Your task to perform on an android device: change the clock display to analog Image 0: 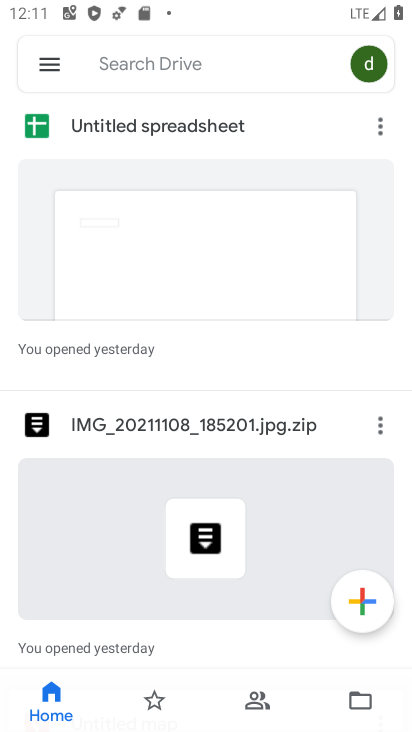
Step 0: press home button
Your task to perform on an android device: change the clock display to analog Image 1: 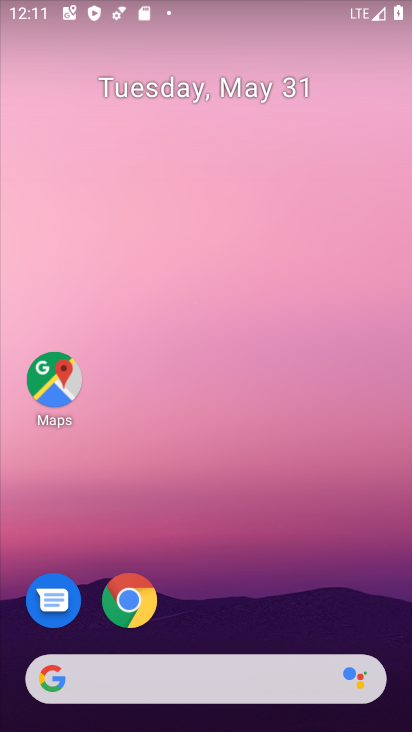
Step 1: drag from (203, 727) to (203, 138)
Your task to perform on an android device: change the clock display to analog Image 2: 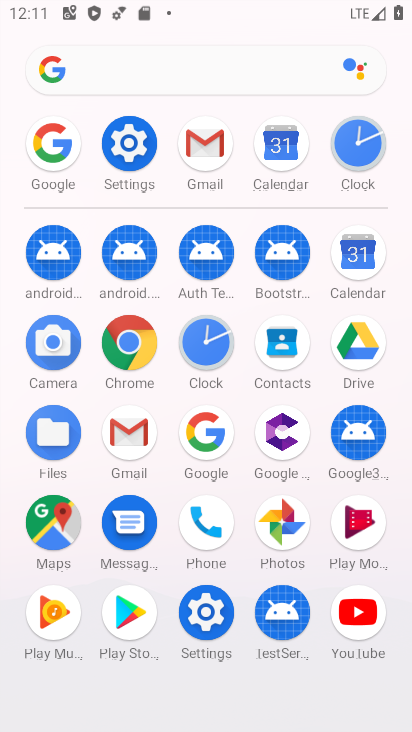
Step 2: click (207, 354)
Your task to perform on an android device: change the clock display to analog Image 3: 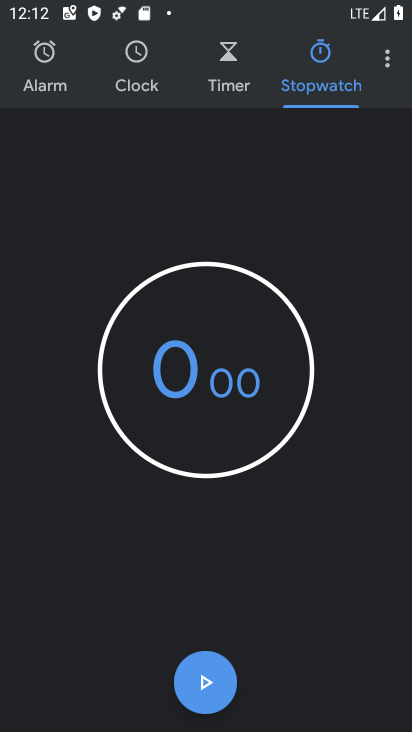
Step 3: click (389, 64)
Your task to perform on an android device: change the clock display to analog Image 4: 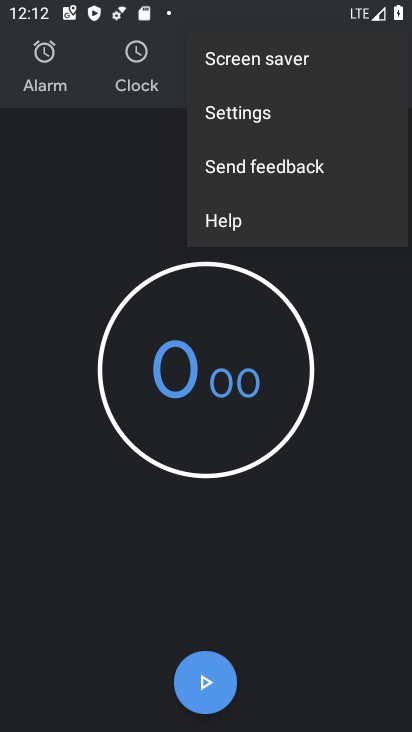
Step 4: click (241, 111)
Your task to perform on an android device: change the clock display to analog Image 5: 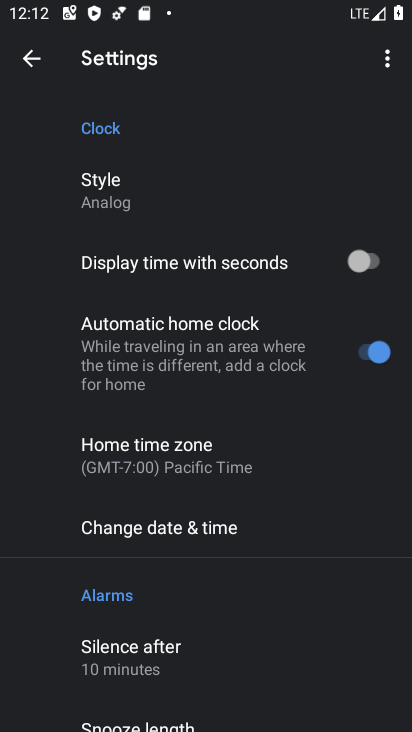
Step 5: task complete